Your task to perform on an android device: Go to network settings Image 0: 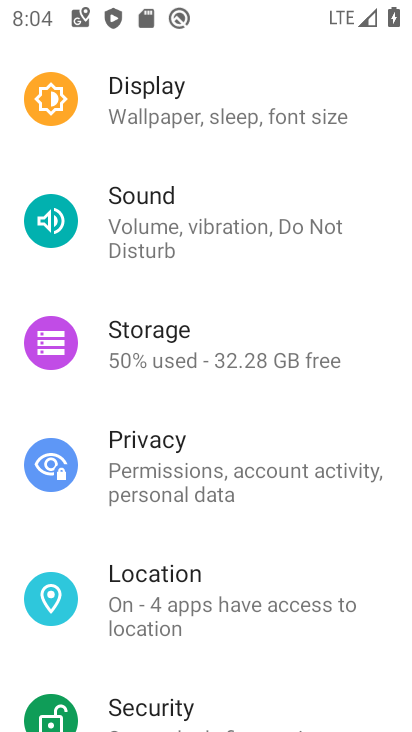
Step 0: drag from (239, 152) to (182, 712)
Your task to perform on an android device: Go to network settings Image 1: 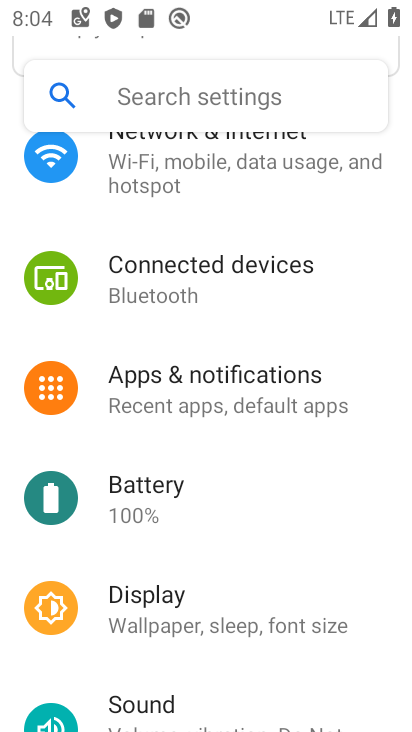
Step 1: drag from (206, 308) to (171, 729)
Your task to perform on an android device: Go to network settings Image 2: 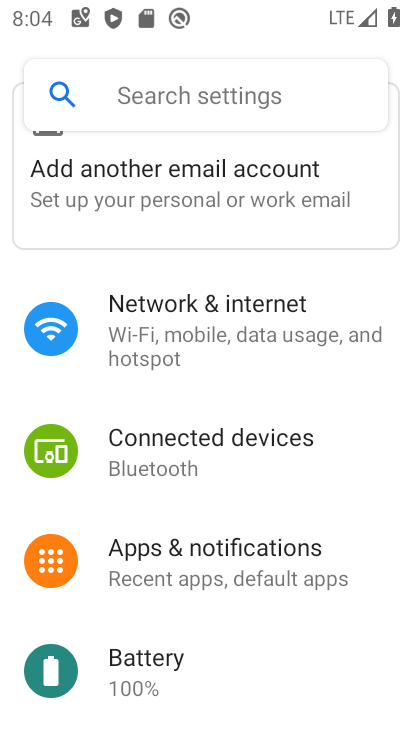
Step 2: click (203, 316)
Your task to perform on an android device: Go to network settings Image 3: 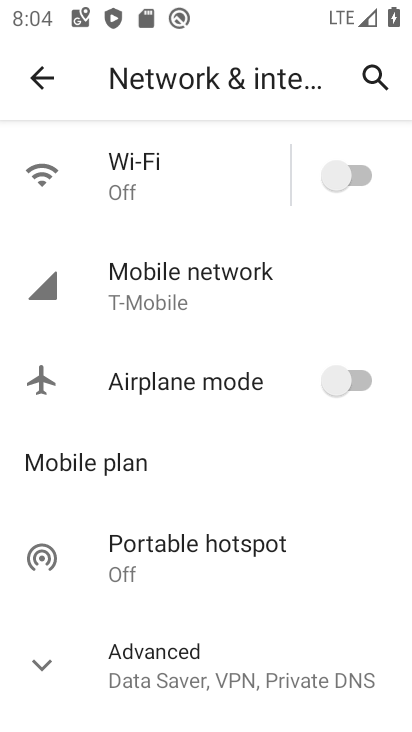
Step 3: task complete